Your task to perform on an android device: turn on bluetooth scan Image 0: 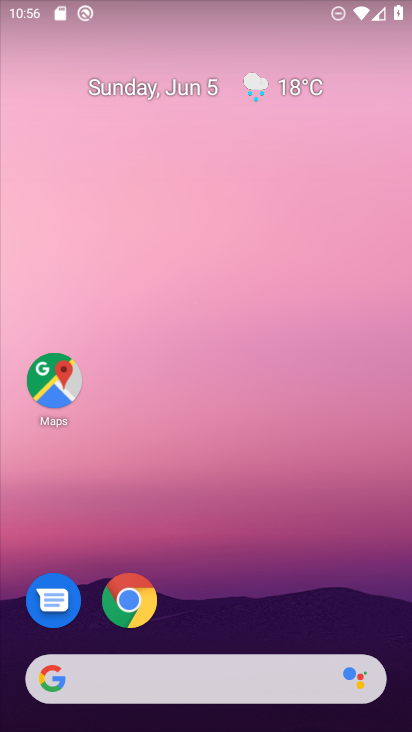
Step 0: drag from (233, 583) to (274, 94)
Your task to perform on an android device: turn on bluetooth scan Image 1: 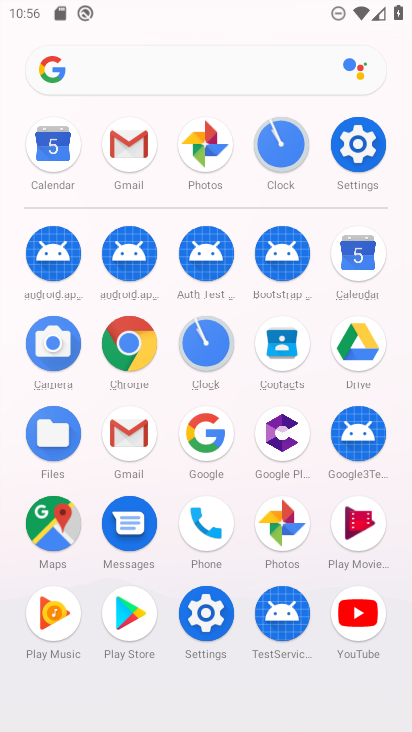
Step 1: click (353, 149)
Your task to perform on an android device: turn on bluetooth scan Image 2: 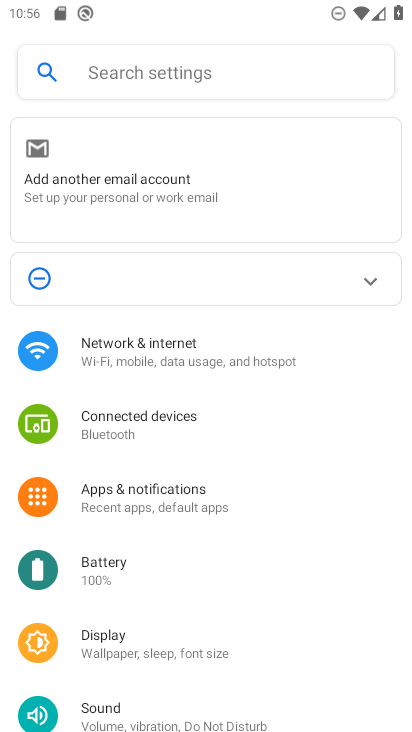
Step 2: click (140, 422)
Your task to perform on an android device: turn on bluetooth scan Image 3: 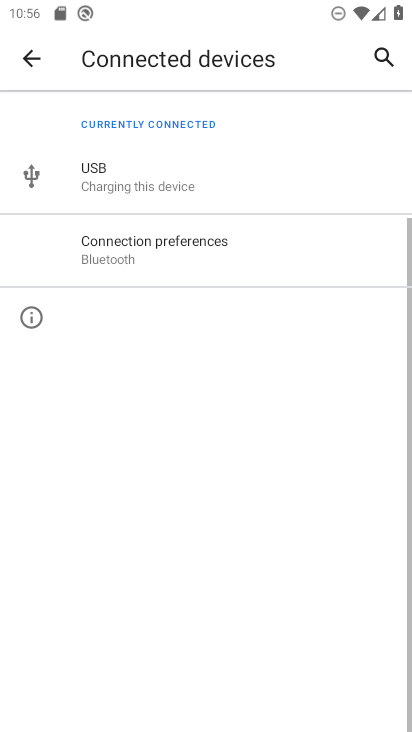
Step 3: click (116, 252)
Your task to perform on an android device: turn on bluetooth scan Image 4: 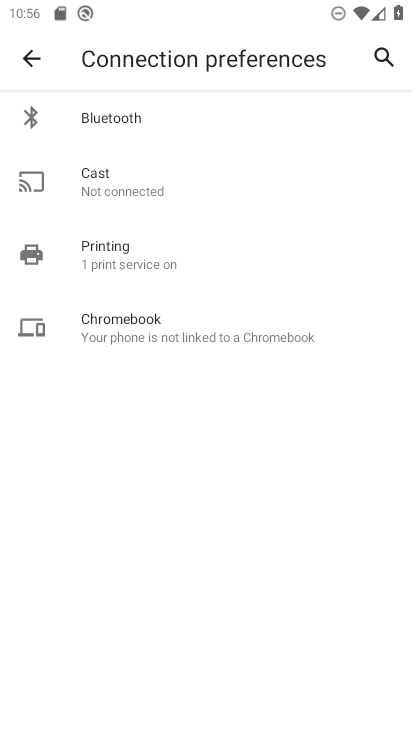
Step 4: click (127, 90)
Your task to perform on an android device: turn on bluetooth scan Image 5: 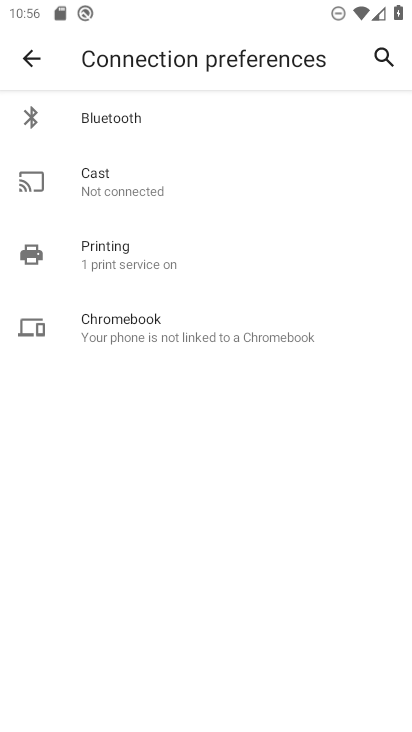
Step 5: click (119, 122)
Your task to perform on an android device: turn on bluetooth scan Image 6: 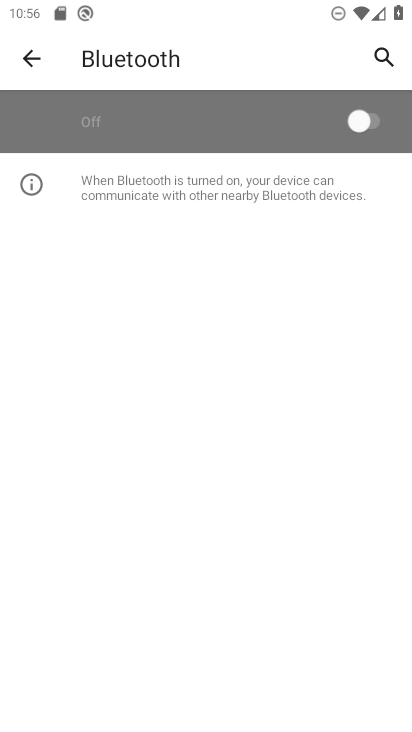
Step 6: click (366, 132)
Your task to perform on an android device: turn on bluetooth scan Image 7: 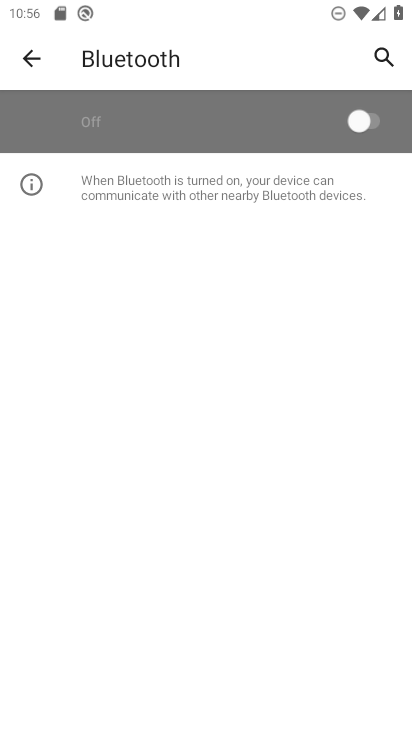
Step 7: task complete